Your task to perform on an android device: turn off priority inbox in the gmail app Image 0: 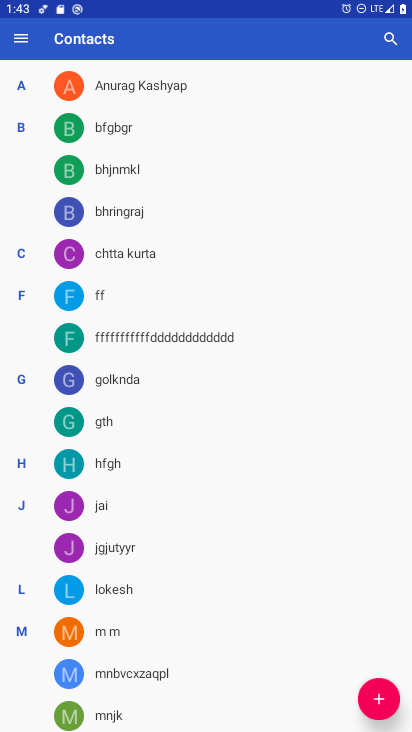
Step 0: press home button
Your task to perform on an android device: turn off priority inbox in the gmail app Image 1: 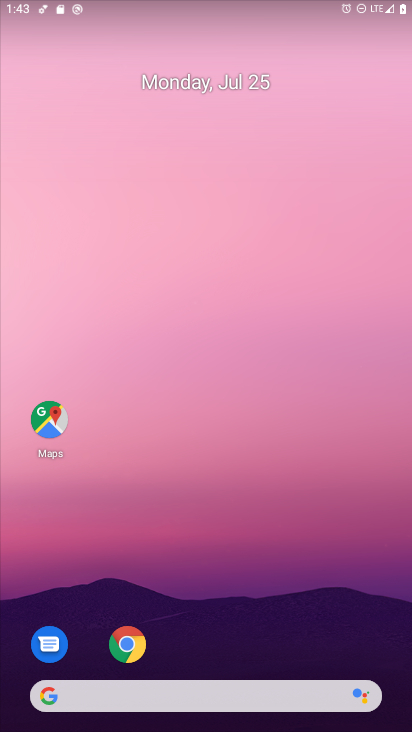
Step 1: drag from (235, 641) to (235, 39)
Your task to perform on an android device: turn off priority inbox in the gmail app Image 2: 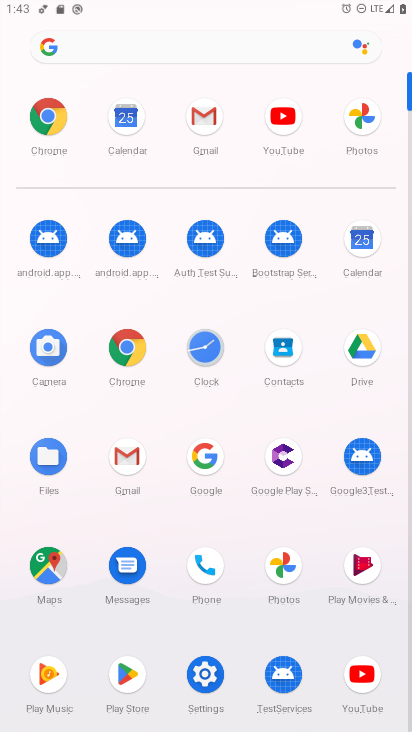
Step 2: click (203, 123)
Your task to perform on an android device: turn off priority inbox in the gmail app Image 3: 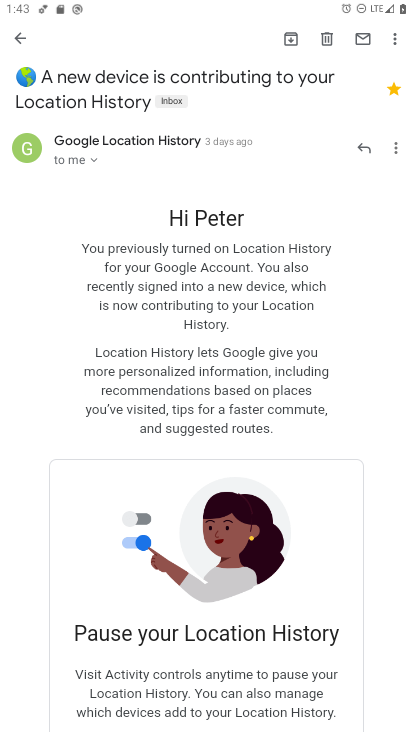
Step 3: click (16, 36)
Your task to perform on an android device: turn off priority inbox in the gmail app Image 4: 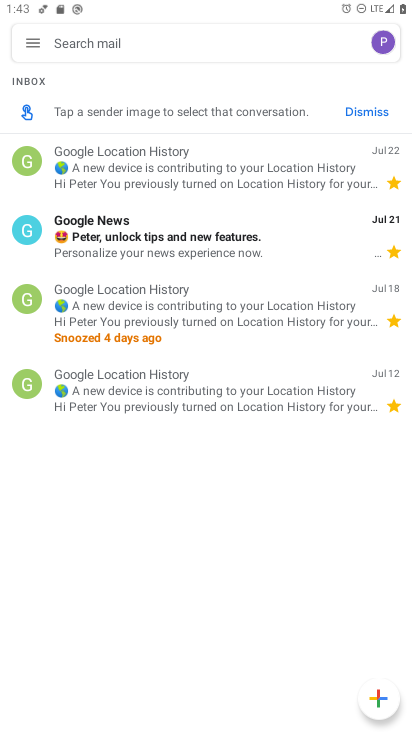
Step 4: click (32, 40)
Your task to perform on an android device: turn off priority inbox in the gmail app Image 5: 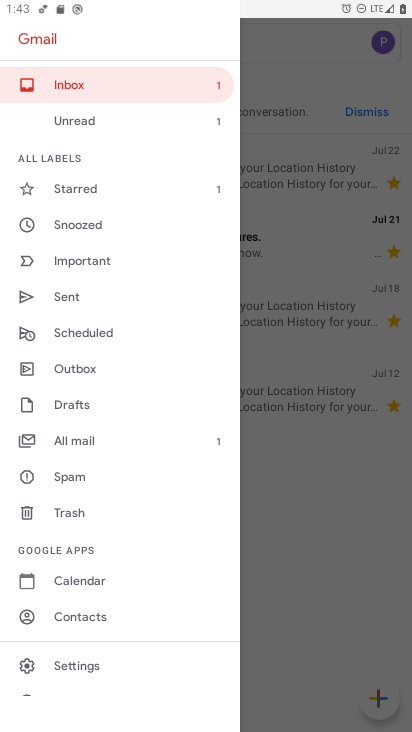
Step 5: click (98, 661)
Your task to perform on an android device: turn off priority inbox in the gmail app Image 6: 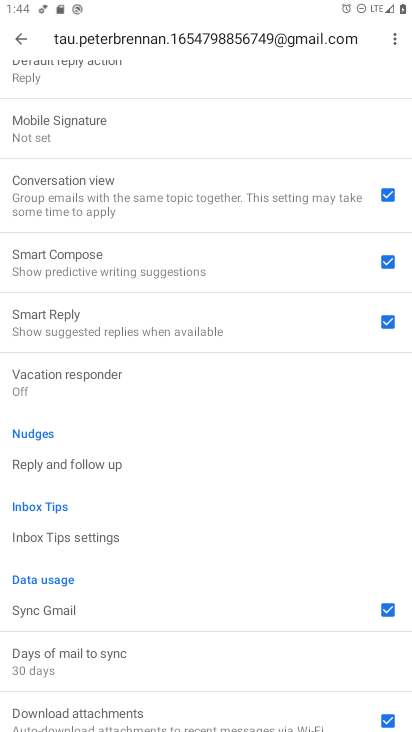
Step 6: drag from (160, 160) to (194, 395)
Your task to perform on an android device: turn off priority inbox in the gmail app Image 7: 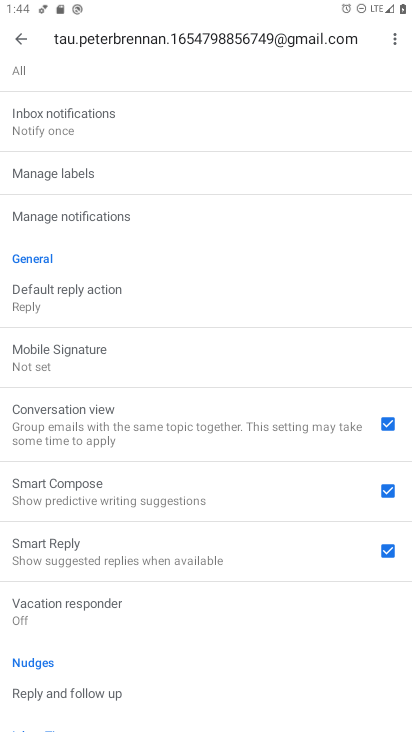
Step 7: drag from (173, 170) to (209, 470)
Your task to perform on an android device: turn off priority inbox in the gmail app Image 8: 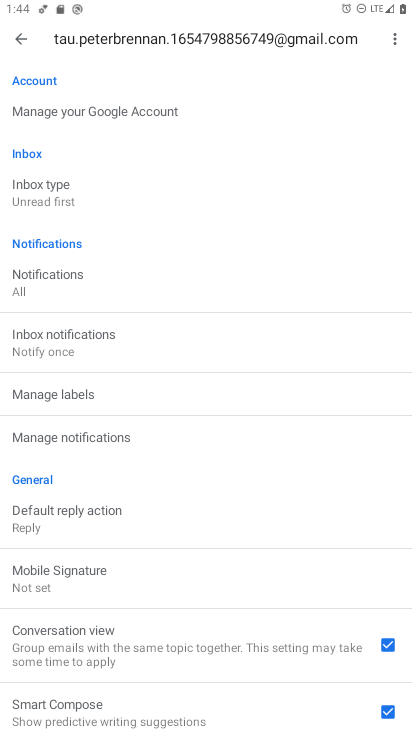
Step 8: click (51, 203)
Your task to perform on an android device: turn off priority inbox in the gmail app Image 9: 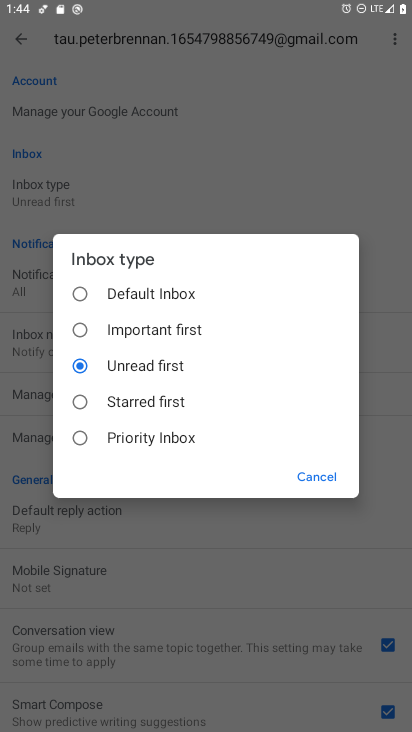
Step 9: click (129, 367)
Your task to perform on an android device: turn off priority inbox in the gmail app Image 10: 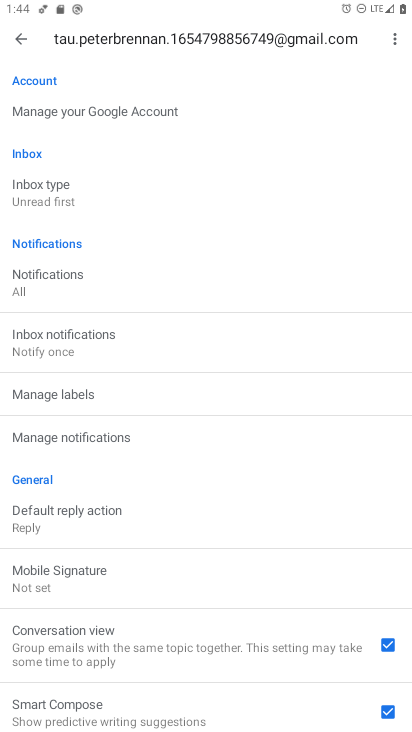
Step 10: task complete